Your task to perform on an android device: turn on priority inbox in the gmail app Image 0: 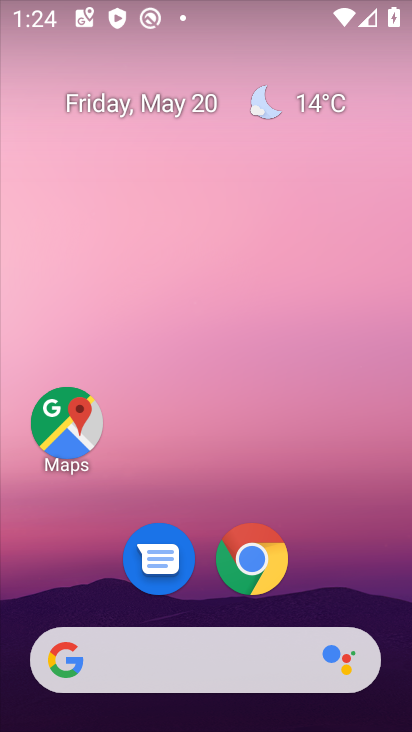
Step 0: drag from (339, 561) to (286, 215)
Your task to perform on an android device: turn on priority inbox in the gmail app Image 1: 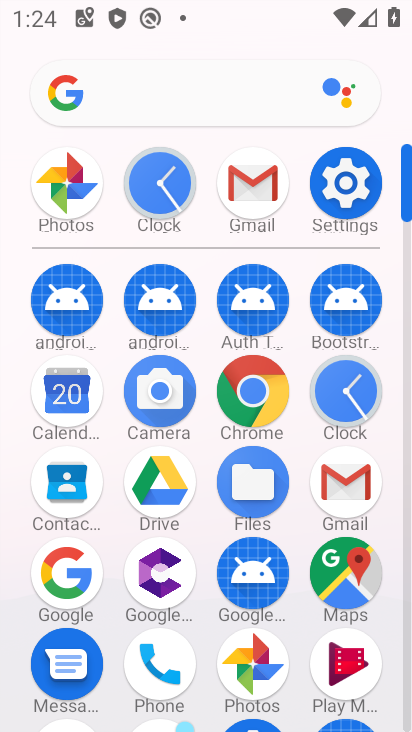
Step 1: click (254, 197)
Your task to perform on an android device: turn on priority inbox in the gmail app Image 2: 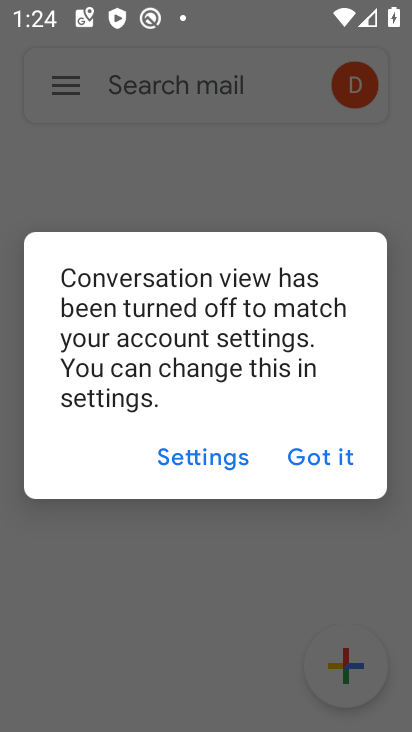
Step 2: click (321, 432)
Your task to perform on an android device: turn on priority inbox in the gmail app Image 3: 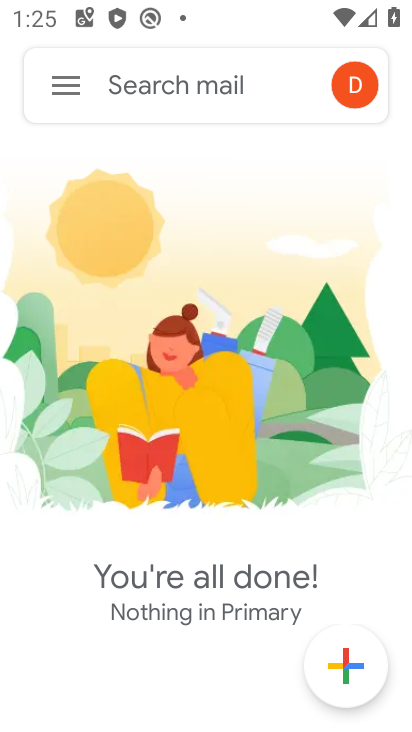
Step 3: click (65, 73)
Your task to perform on an android device: turn on priority inbox in the gmail app Image 4: 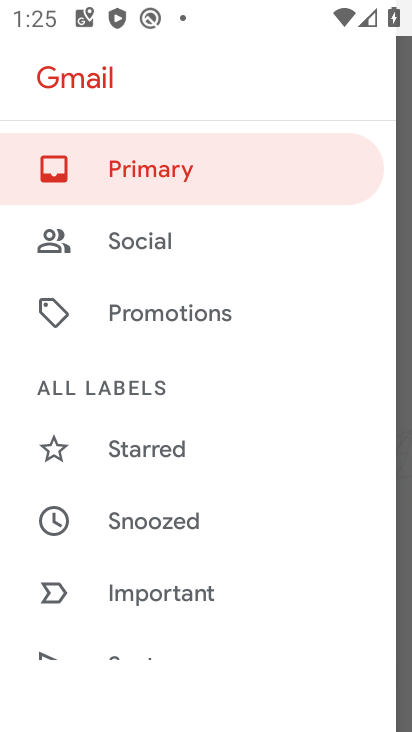
Step 4: drag from (123, 461) to (88, 323)
Your task to perform on an android device: turn on priority inbox in the gmail app Image 5: 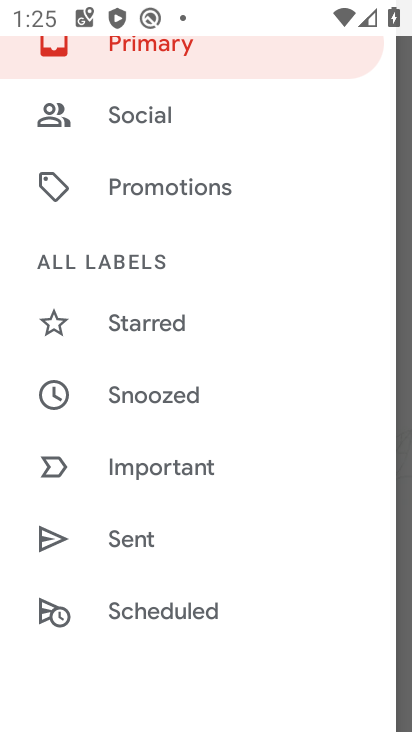
Step 5: drag from (134, 524) to (110, 419)
Your task to perform on an android device: turn on priority inbox in the gmail app Image 6: 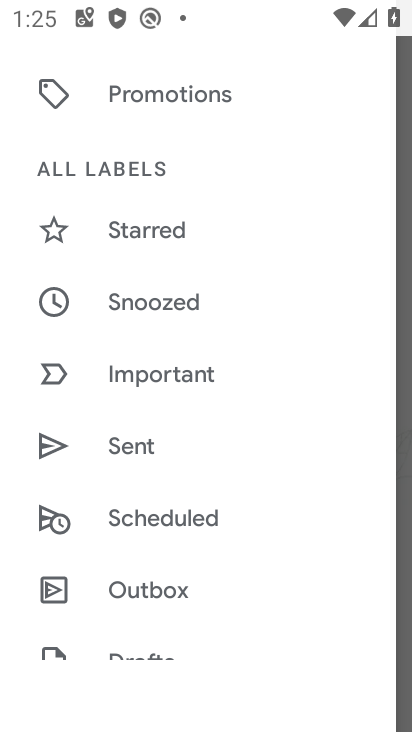
Step 6: drag from (128, 573) to (101, 264)
Your task to perform on an android device: turn on priority inbox in the gmail app Image 7: 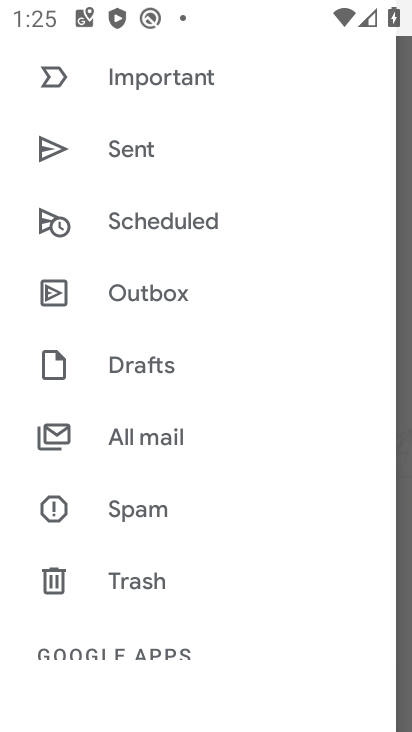
Step 7: drag from (135, 550) to (143, 331)
Your task to perform on an android device: turn on priority inbox in the gmail app Image 8: 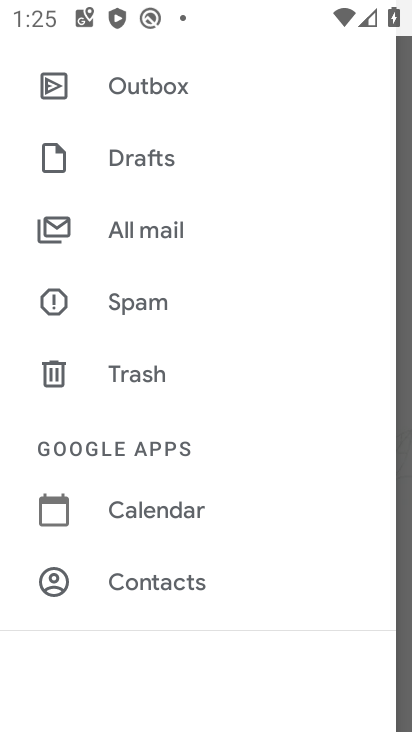
Step 8: drag from (203, 580) to (138, 317)
Your task to perform on an android device: turn on priority inbox in the gmail app Image 9: 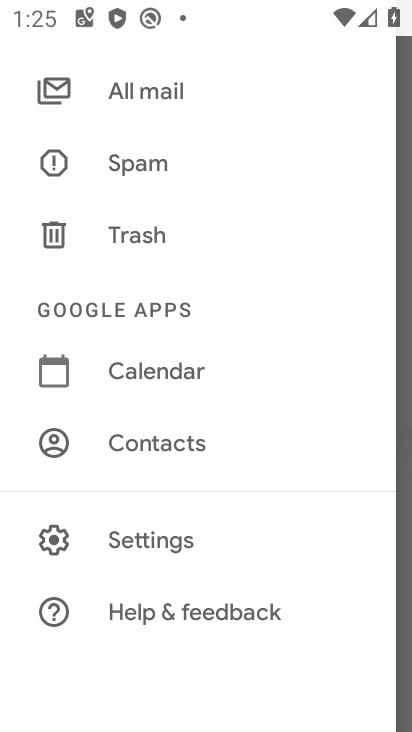
Step 9: click (157, 514)
Your task to perform on an android device: turn on priority inbox in the gmail app Image 10: 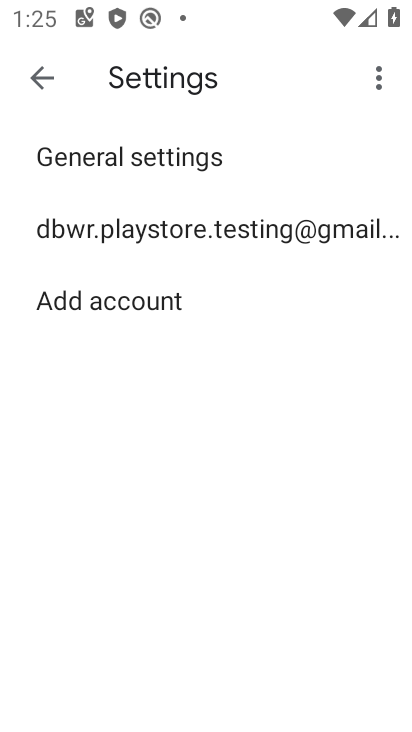
Step 10: click (139, 243)
Your task to perform on an android device: turn on priority inbox in the gmail app Image 11: 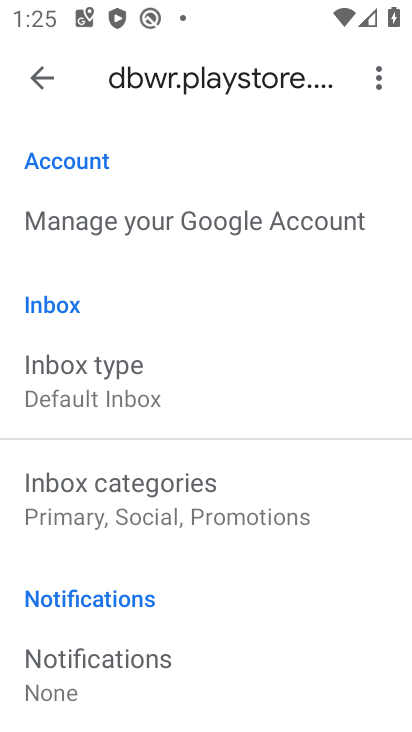
Step 11: click (136, 386)
Your task to perform on an android device: turn on priority inbox in the gmail app Image 12: 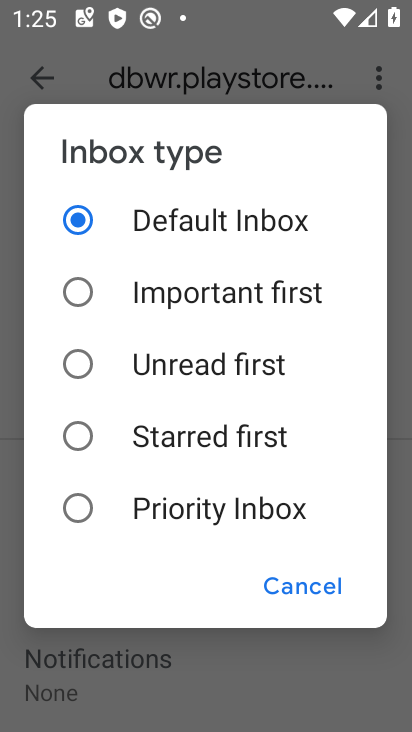
Step 12: click (135, 497)
Your task to perform on an android device: turn on priority inbox in the gmail app Image 13: 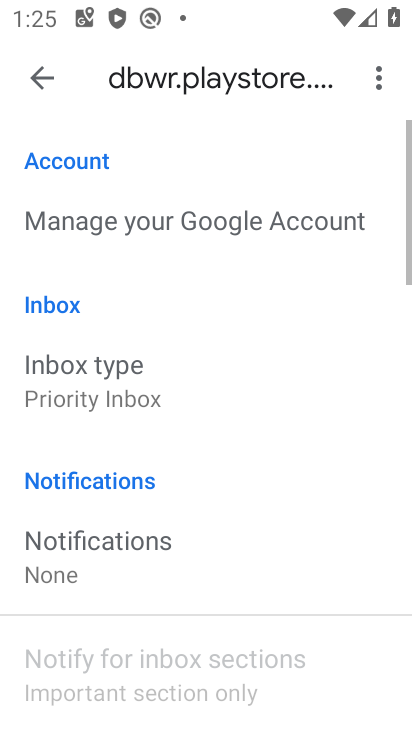
Step 13: task complete